Your task to perform on an android device: turn off airplane mode Image 0: 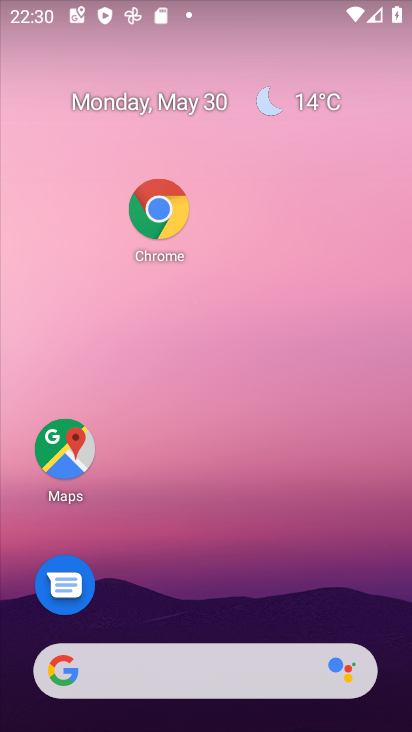
Step 0: click (353, 173)
Your task to perform on an android device: turn off airplane mode Image 1: 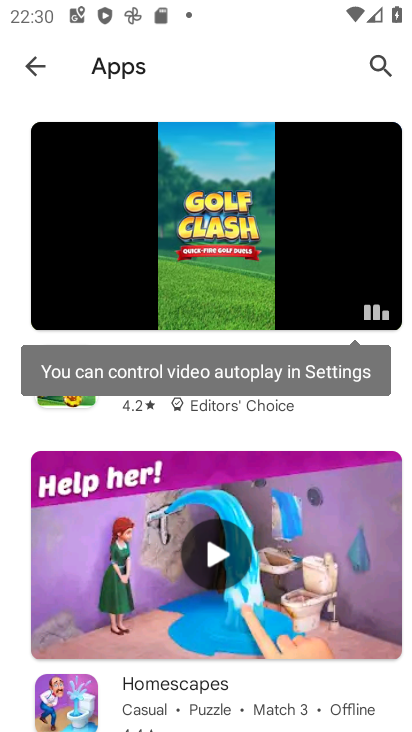
Step 1: press back button
Your task to perform on an android device: turn off airplane mode Image 2: 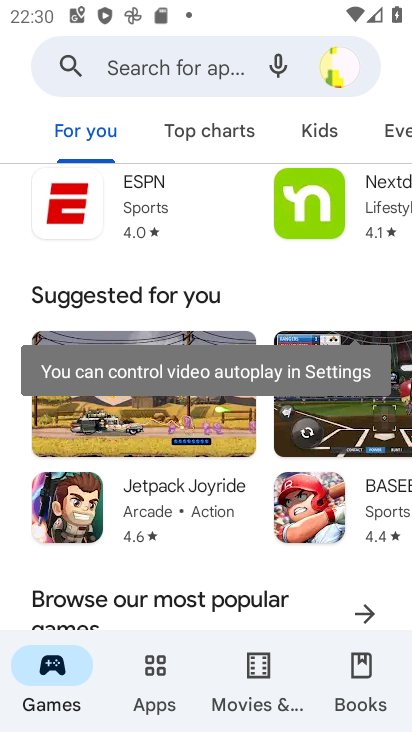
Step 2: drag from (188, 583) to (258, 128)
Your task to perform on an android device: turn off airplane mode Image 3: 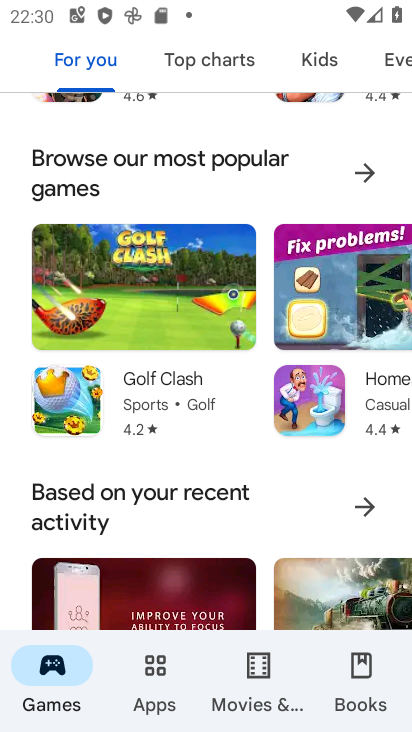
Step 3: click (361, 166)
Your task to perform on an android device: turn off airplane mode Image 4: 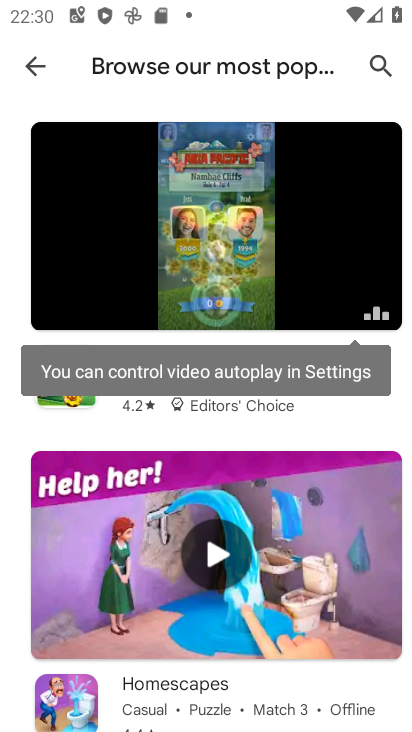
Step 4: press back button
Your task to perform on an android device: turn off airplane mode Image 5: 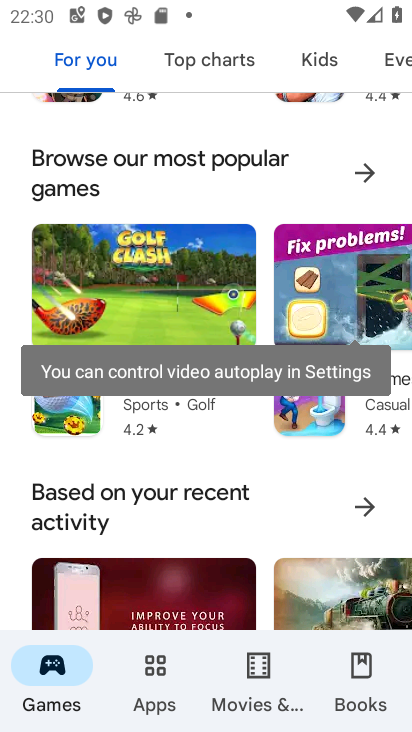
Step 5: drag from (205, 140) to (297, 683)
Your task to perform on an android device: turn off airplane mode Image 6: 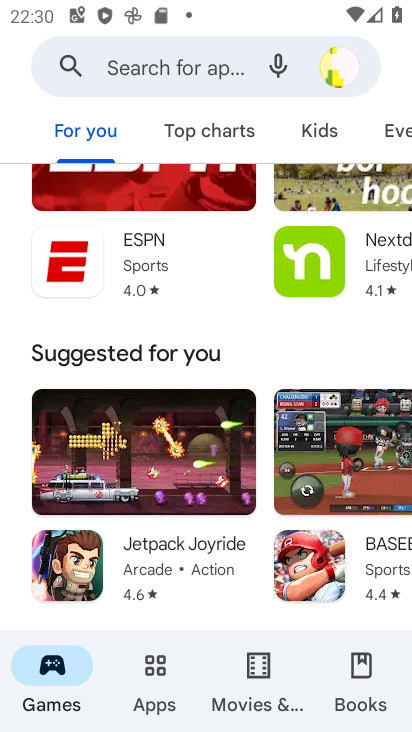
Step 6: drag from (228, 289) to (251, 698)
Your task to perform on an android device: turn off airplane mode Image 7: 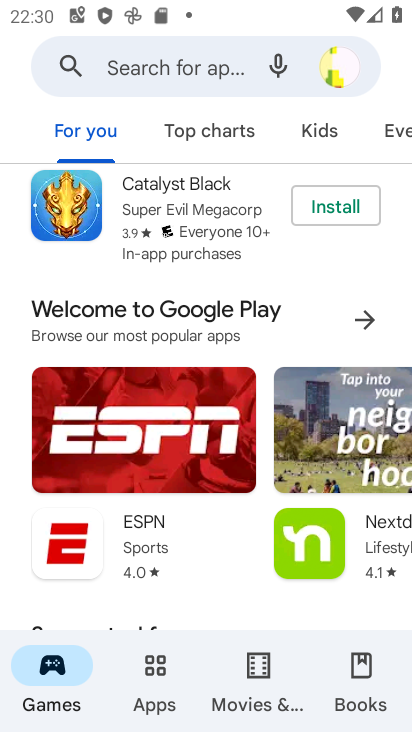
Step 7: press home button
Your task to perform on an android device: turn off airplane mode Image 8: 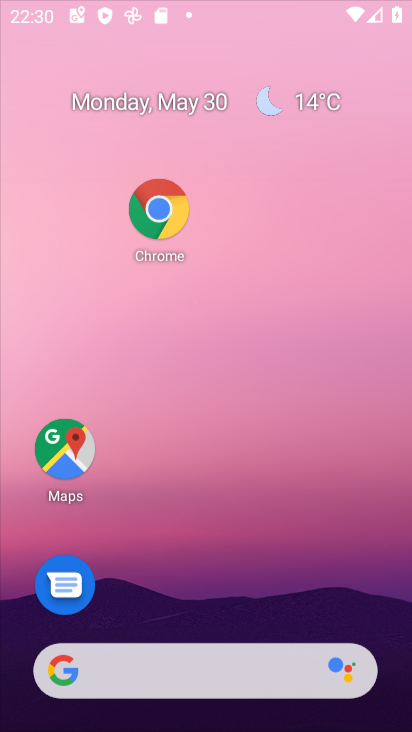
Step 8: drag from (247, 586) to (333, 88)
Your task to perform on an android device: turn off airplane mode Image 9: 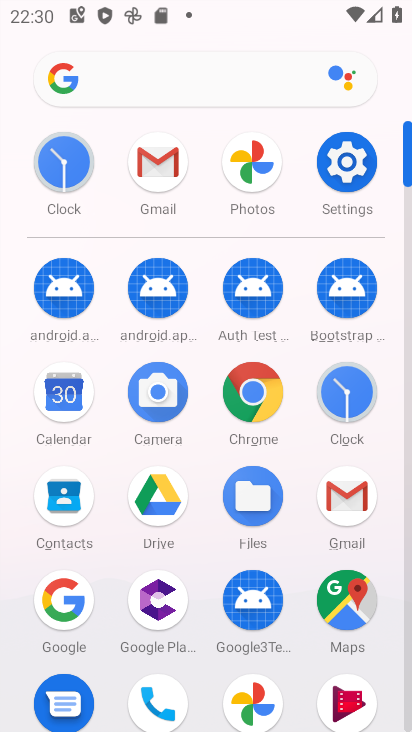
Step 9: click (347, 154)
Your task to perform on an android device: turn off airplane mode Image 10: 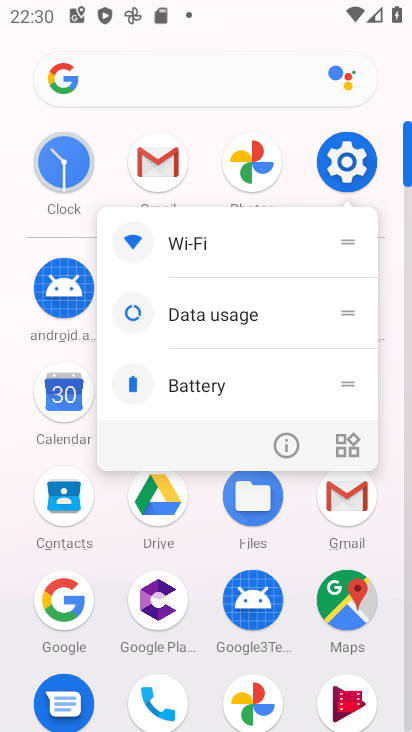
Step 10: click (290, 434)
Your task to perform on an android device: turn off airplane mode Image 11: 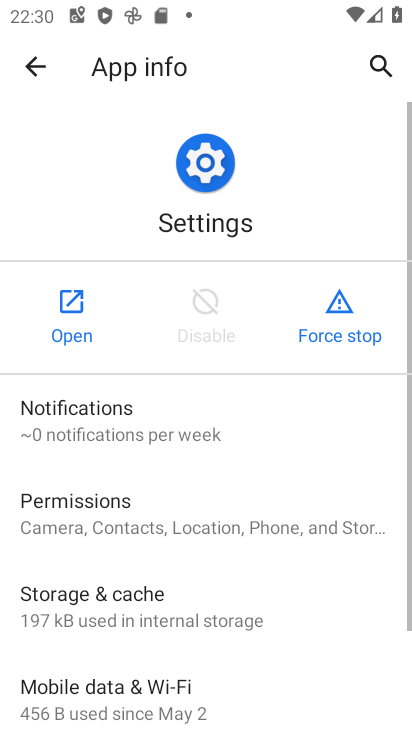
Step 11: click (76, 315)
Your task to perform on an android device: turn off airplane mode Image 12: 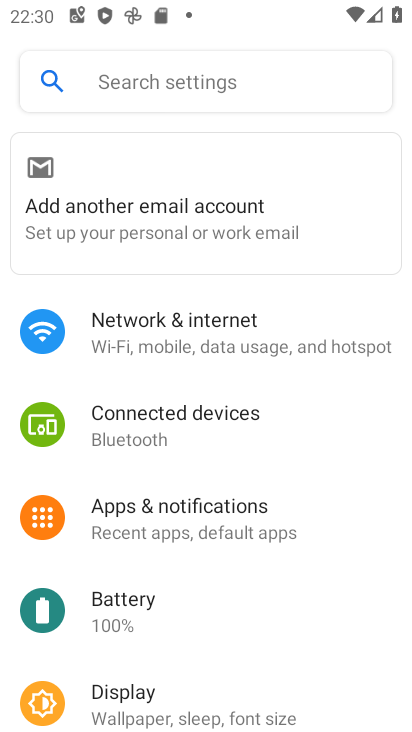
Step 12: click (253, 330)
Your task to perform on an android device: turn off airplane mode Image 13: 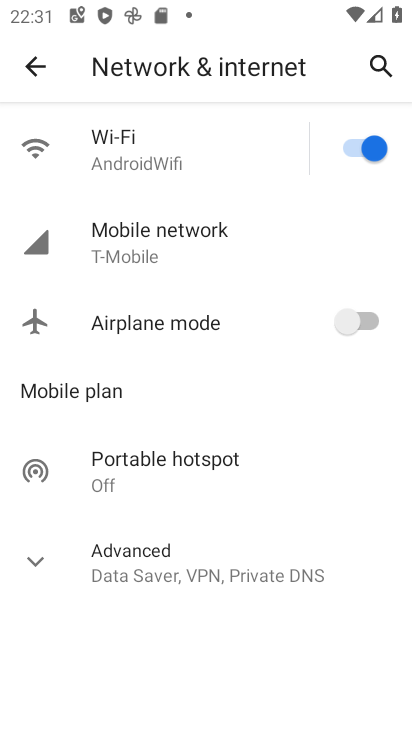
Step 13: task complete